Your task to perform on an android device: turn on the 24-hour format for clock Image 0: 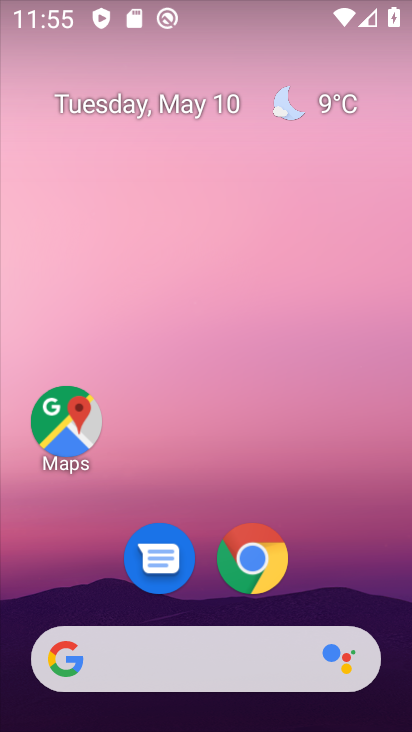
Step 0: drag from (377, 547) to (324, 86)
Your task to perform on an android device: turn on the 24-hour format for clock Image 1: 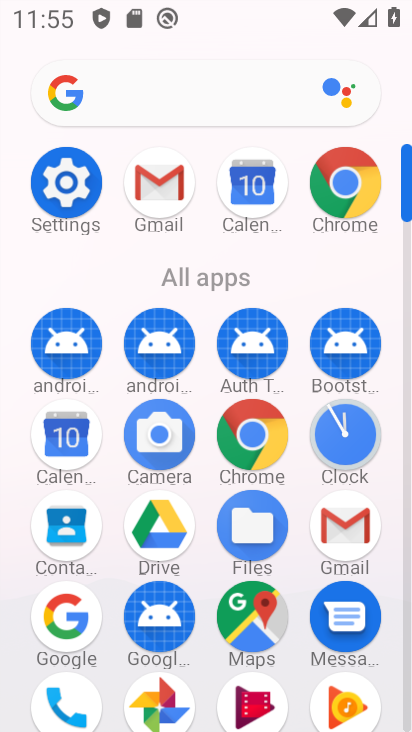
Step 1: click (343, 434)
Your task to perform on an android device: turn on the 24-hour format for clock Image 2: 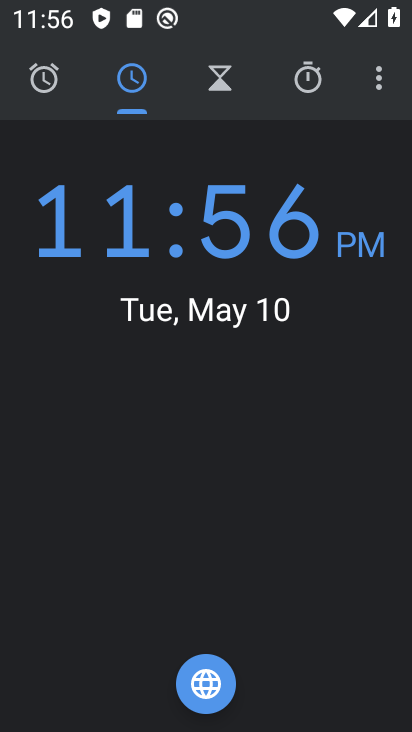
Step 2: click (384, 90)
Your task to perform on an android device: turn on the 24-hour format for clock Image 3: 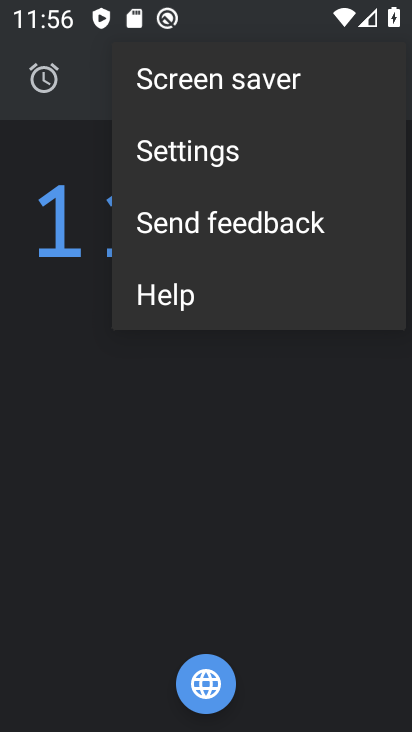
Step 3: click (241, 150)
Your task to perform on an android device: turn on the 24-hour format for clock Image 4: 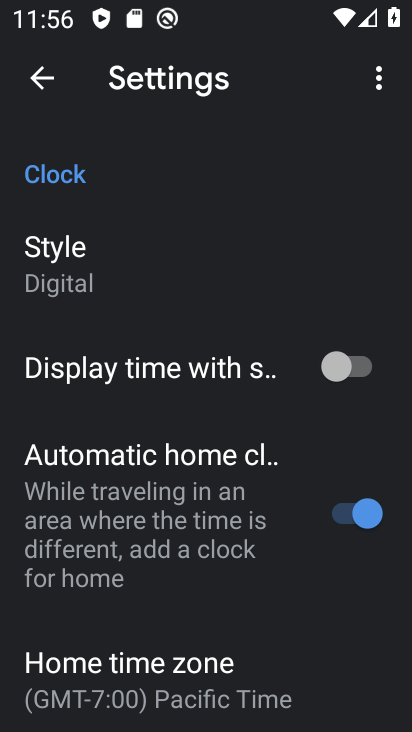
Step 4: drag from (195, 583) to (203, 266)
Your task to perform on an android device: turn on the 24-hour format for clock Image 5: 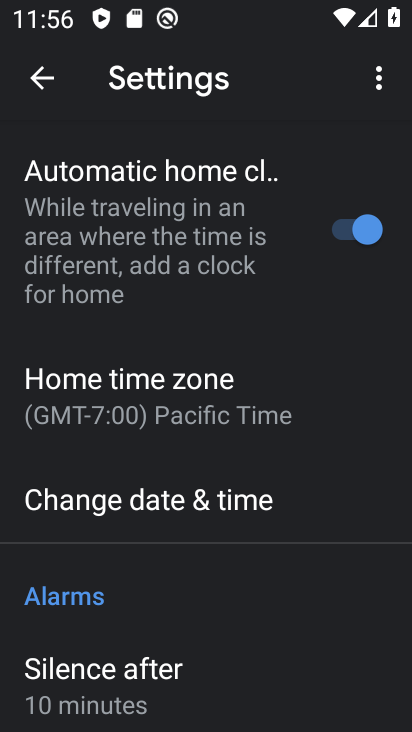
Step 5: click (189, 518)
Your task to perform on an android device: turn on the 24-hour format for clock Image 6: 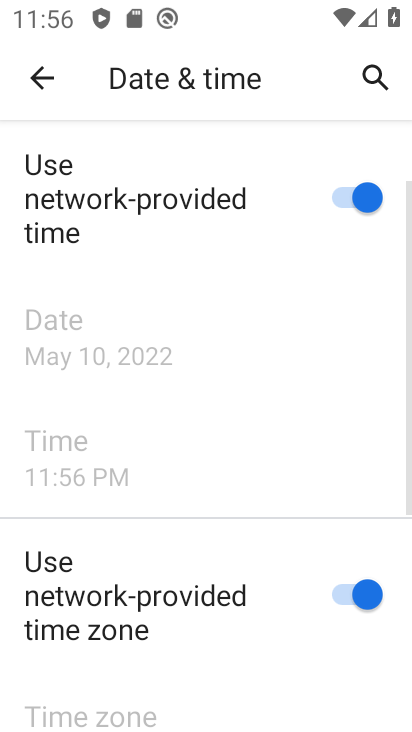
Step 6: drag from (296, 653) to (301, 265)
Your task to perform on an android device: turn on the 24-hour format for clock Image 7: 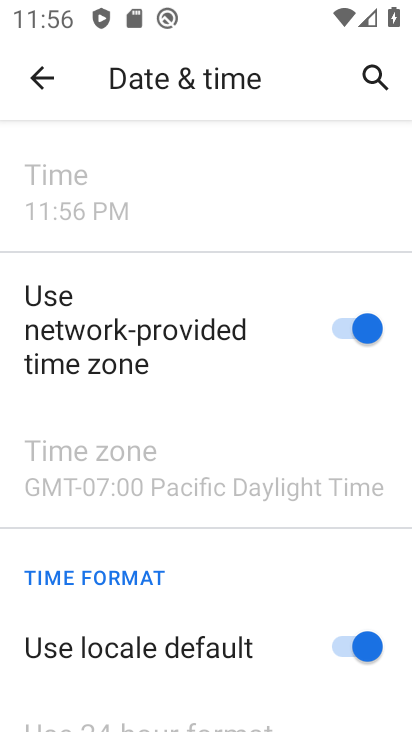
Step 7: drag from (327, 648) to (331, 225)
Your task to perform on an android device: turn on the 24-hour format for clock Image 8: 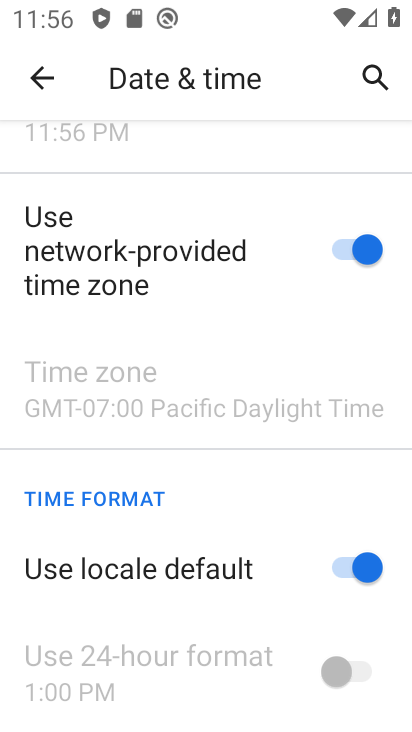
Step 8: click (348, 571)
Your task to perform on an android device: turn on the 24-hour format for clock Image 9: 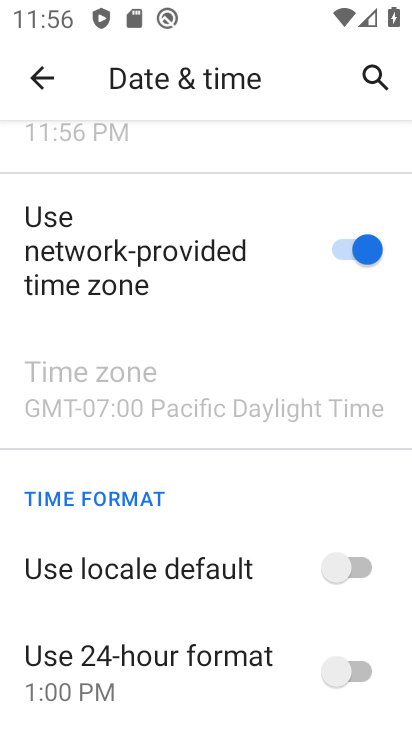
Step 9: click (372, 671)
Your task to perform on an android device: turn on the 24-hour format for clock Image 10: 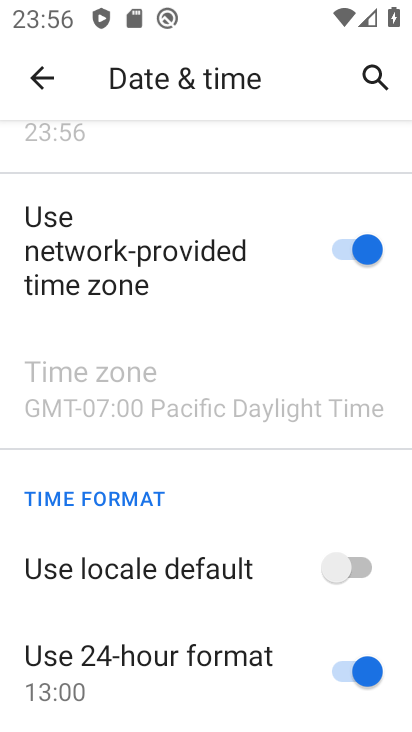
Step 10: task complete